Your task to perform on an android device: change the clock display to digital Image 0: 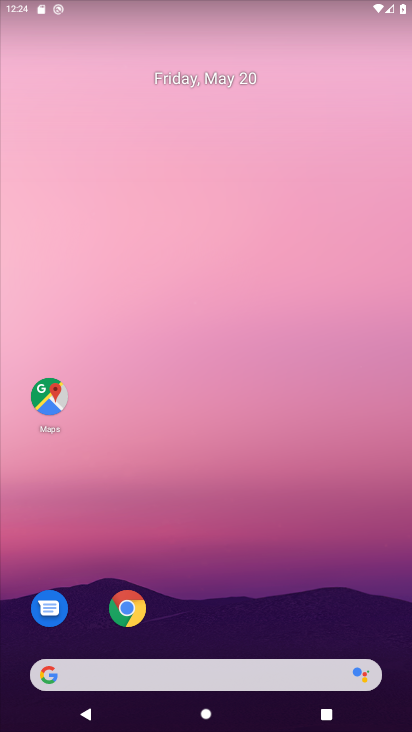
Step 0: press home button
Your task to perform on an android device: change the clock display to digital Image 1: 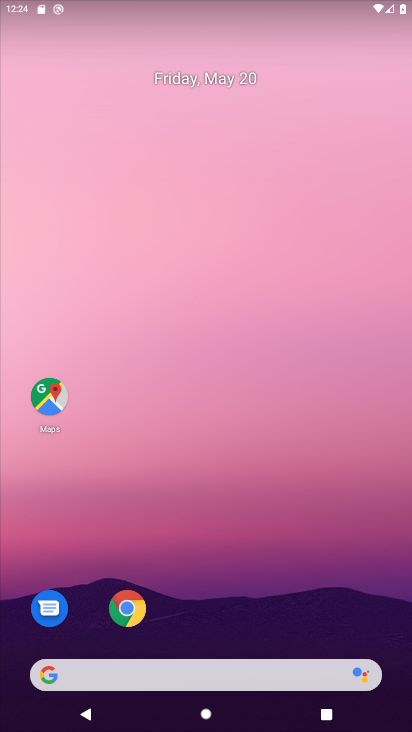
Step 1: drag from (236, 581) to (301, 6)
Your task to perform on an android device: change the clock display to digital Image 2: 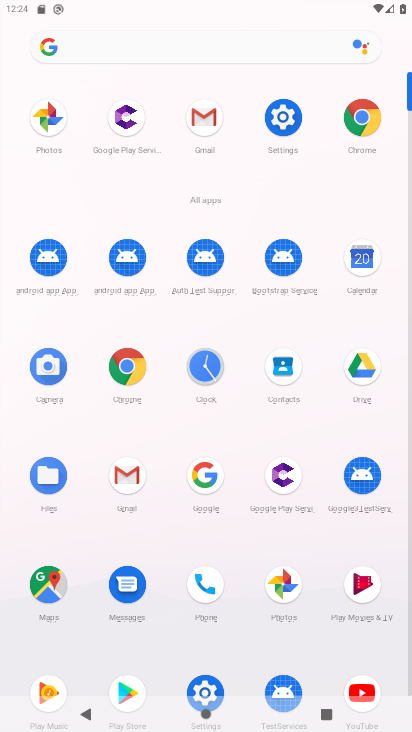
Step 2: click (208, 357)
Your task to perform on an android device: change the clock display to digital Image 3: 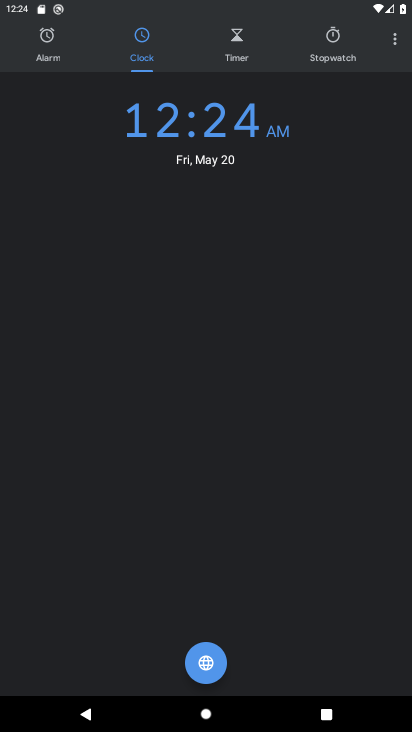
Step 3: click (390, 45)
Your task to perform on an android device: change the clock display to digital Image 4: 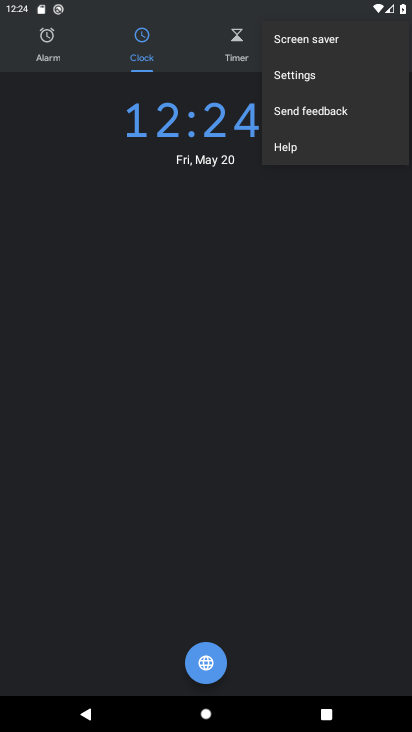
Step 4: click (325, 80)
Your task to perform on an android device: change the clock display to digital Image 5: 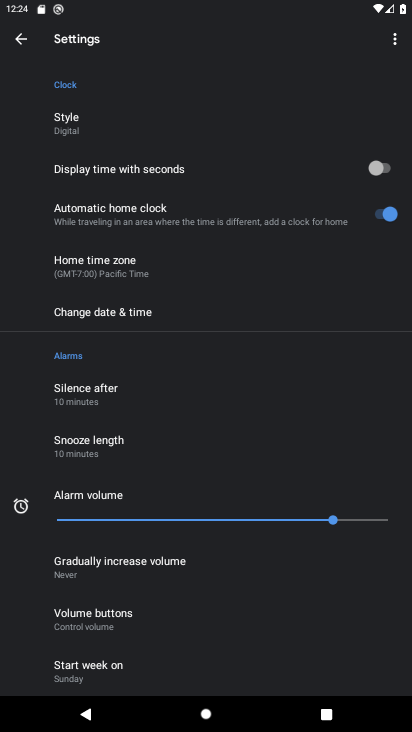
Step 5: click (62, 117)
Your task to perform on an android device: change the clock display to digital Image 6: 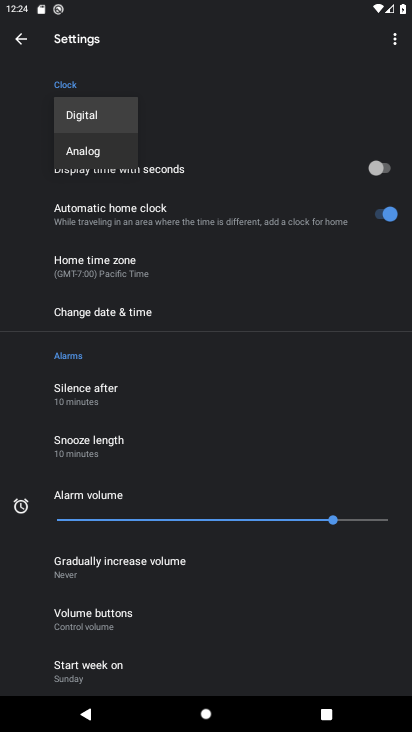
Step 6: click (94, 118)
Your task to perform on an android device: change the clock display to digital Image 7: 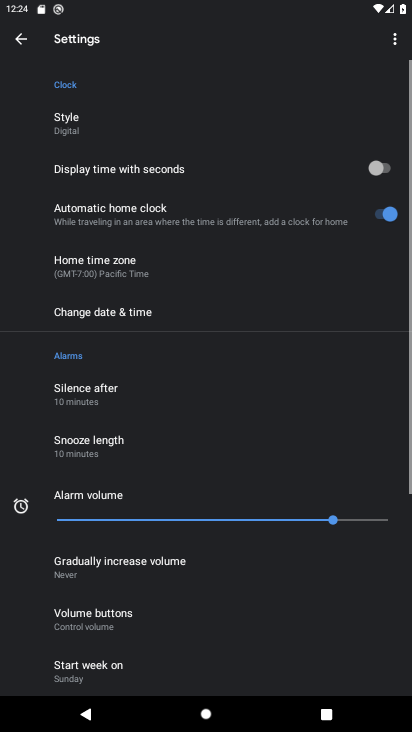
Step 7: task complete